Your task to perform on an android device: What's on my calendar tomorrow? Image 0: 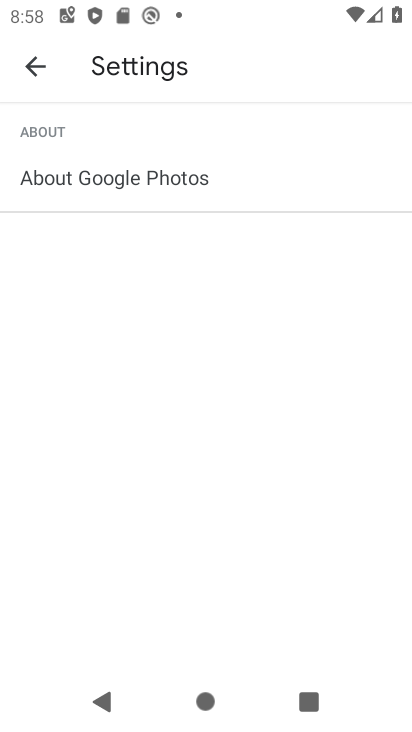
Step 0: press home button
Your task to perform on an android device: What's on my calendar tomorrow? Image 1: 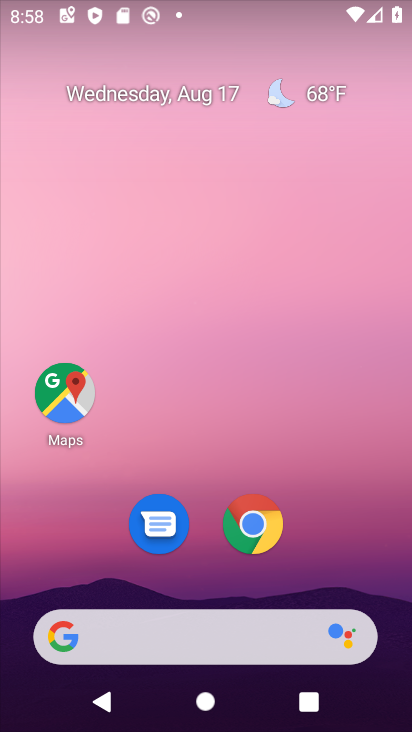
Step 1: drag from (314, 541) to (335, 16)
Your task to perform on an android device: What's on my calendar tomorrow? Image 2: 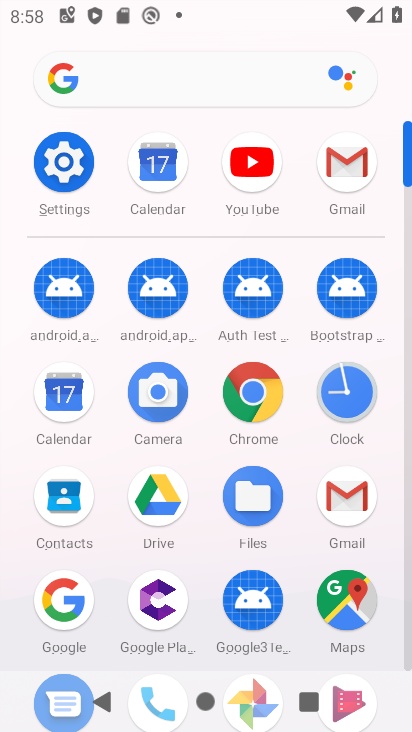
Step 2: click (161, 167)
Your task to perform on an android device: What's on my calendar tomorrow? Image 3: 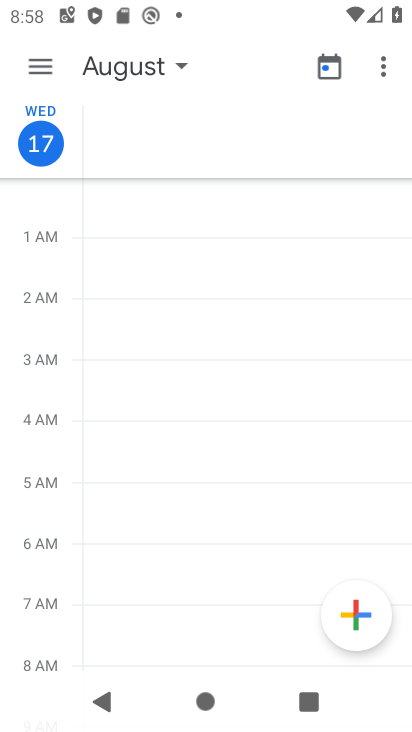
Step 3: click (37, 69)
Your task to perform on an android device: What's on my calendar tomorrow? Image 4: 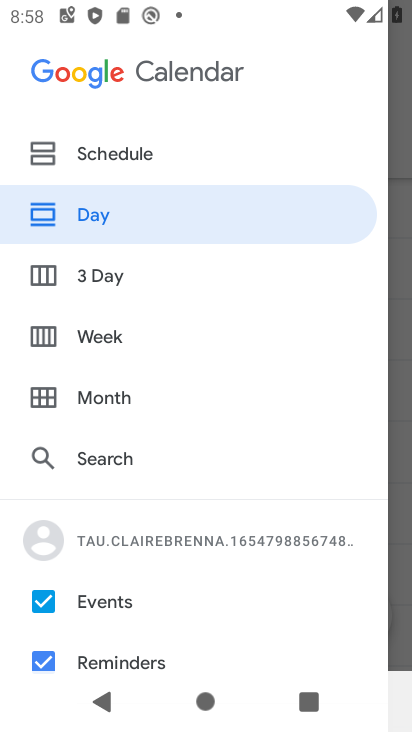
Step 4: click (69, 271)
Your task to perform on an android device: What's on my calendar tomorrow? Image 5: 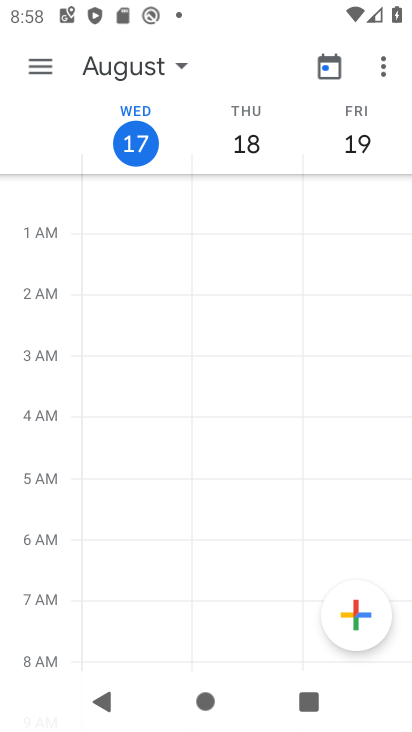
Step 5: task complete